Your task to perform on an android device: turn on data saver in the chrome app Image 0: 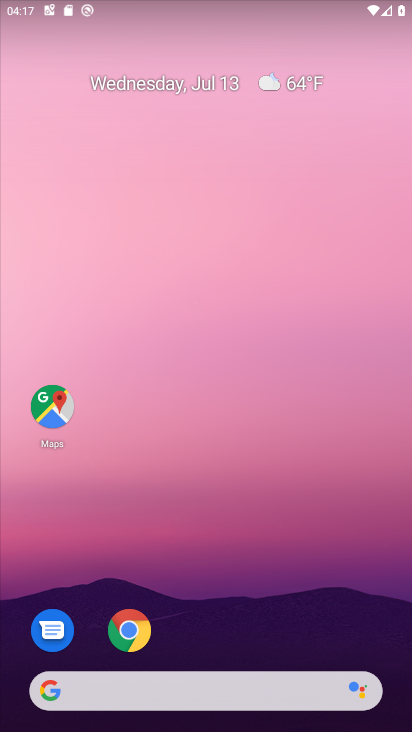
Step 0: click (134, 620)
Your task to perform on an android device: turn on data saver in the chrome app Image 1: 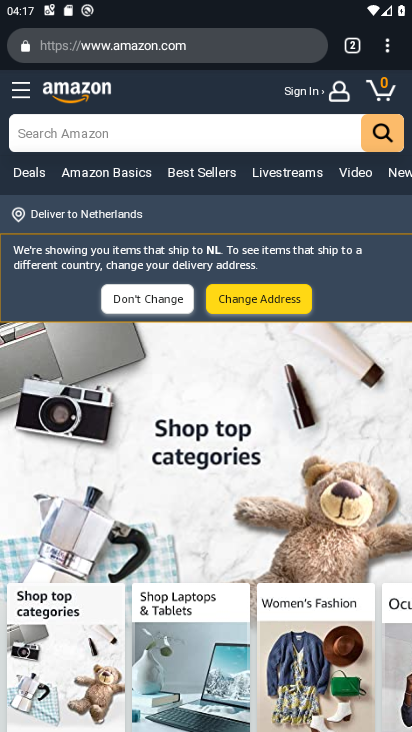
Step 1: click (402, 51)
Your task to perform on an android device: turn on data saver in the chrome app Image 2: 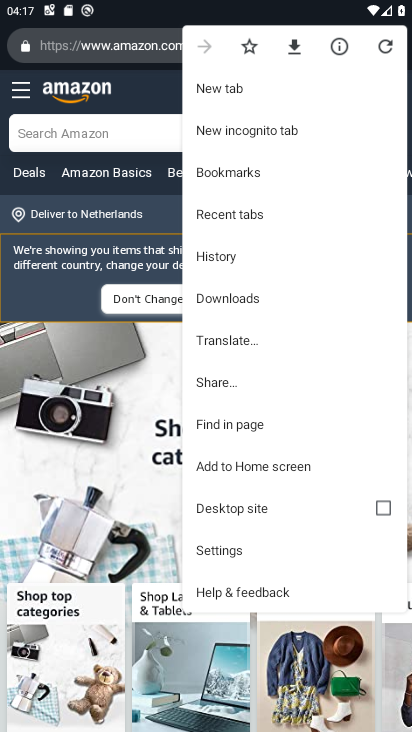
Step 2: click (224, 544)
Your task to perform on an android device: turn on data saver in the chrome app Image 3: 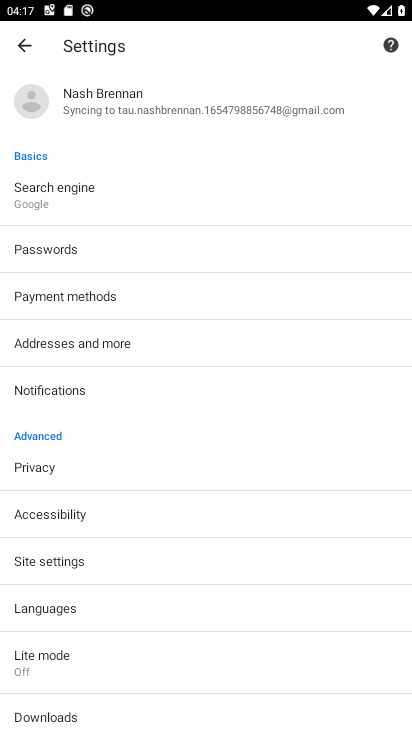
Step 3: click (55, 663)
Your task to perform on an android device: turn on data saver in the chrome app Image 4: 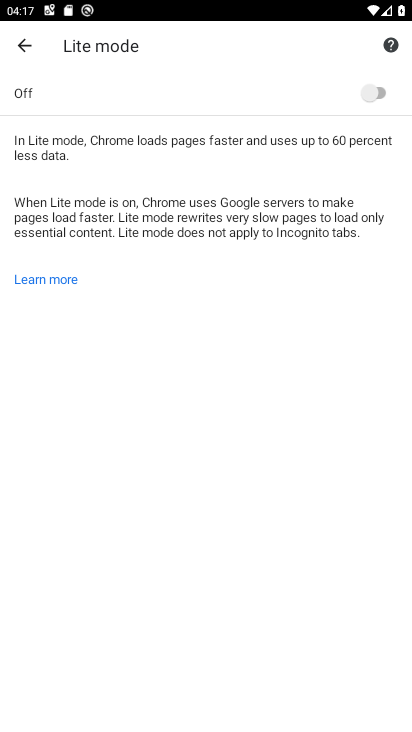
Step 4: click (384, 84)
Your task to perform on an android device: turn on data saver in the chrome app Image 5: 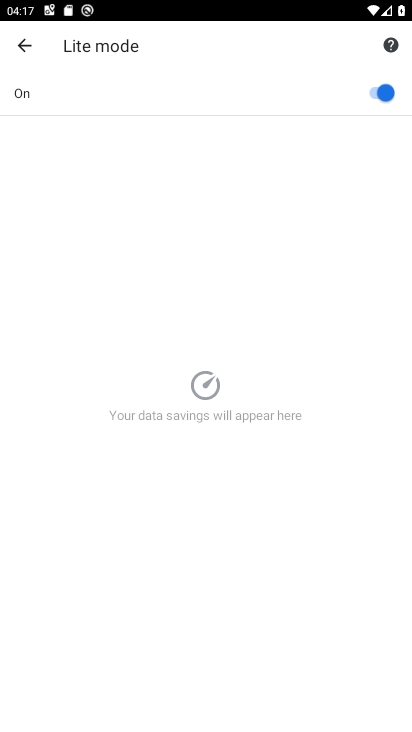
Step 5: task complete